Your task to perform on an android device: Clear all items from cart on target.com. Add "dell xps" to the cart on target.com Image 0: 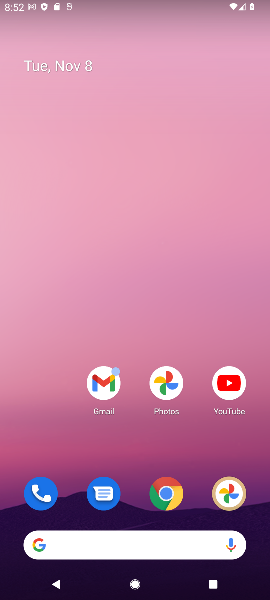
Step 0: click (171, 494)
Your task to perform on an android device: Clear all items from cart on target.com. Add "dell xps" to the cart on target.com Image 1: 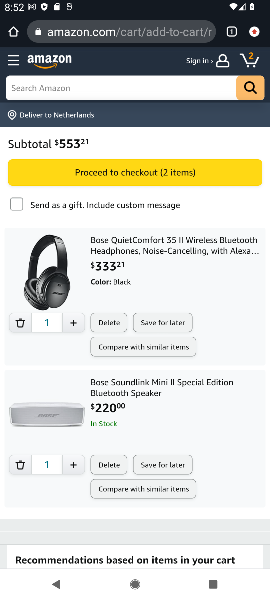
Step 1: click (89, 32)
Your task to perform on an android device: Clear all items from cart on target.com. Add "dell xps" to the cart on target.com Image 2: 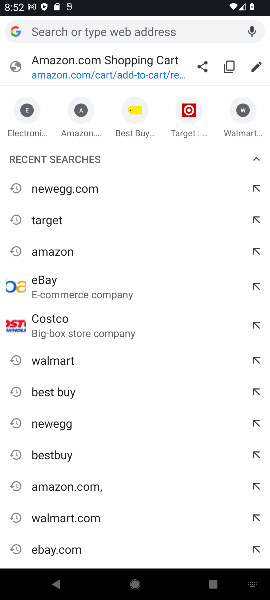
Step 2: click (178, 117)
Your task to perform on an android device: Clear all items from cart on target.com. Add "dell xps" to the cart on target.com Image 3: 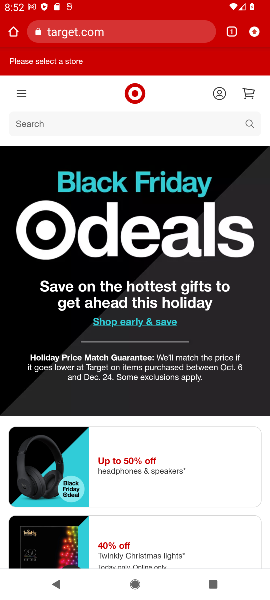
Step 3: click (247, 94)
Your task to perform on an android device: Clear all items from cart on target.com. Add "dell xps" to the cart on target.com Image 4: 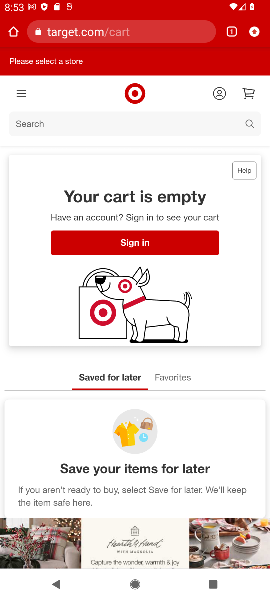
Step 4: click (245, 122)
Your task to perform on an android device: Clear all items from cart on target.com. Add "dell xps" to the cart on target.com Image 5: 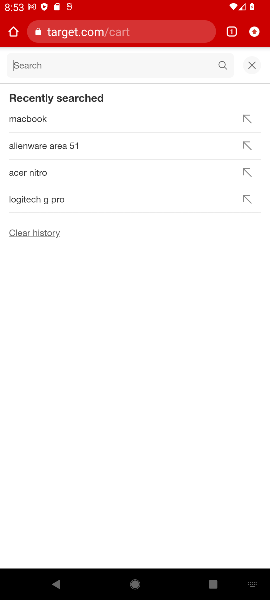
Step 5: type "dell xps"
Your task to perform on an android device: Clear all items from cart on target.com. Add "dell xps" to the cart on target.com Image 6: 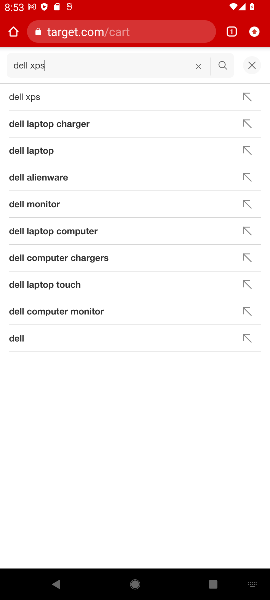
Step 6: click (38, 99)
Your task to perform on an android device: Clear all items from cart on target.com. Add "dell xps" to the cart on target.com Image 7: 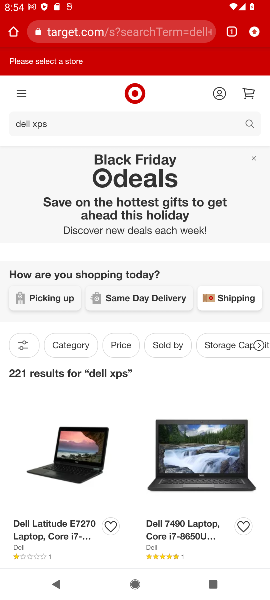
Step 7: click (250, 93)
Your task to perform on an android device: Clear all items from cart on target.com. Add "dell xps" to the cart on target.com Image 8: 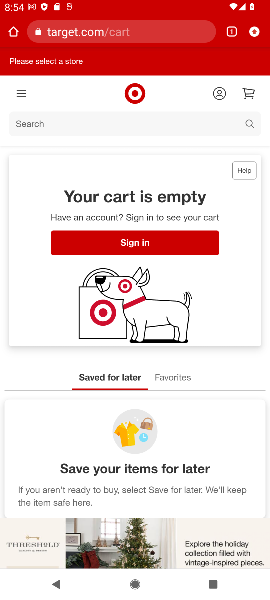
Step 8: click (155, 124)
Your task to perform on an android device: Clear all items from cart on target.com. Add "dell xps" to the cart on target.com Image 9: 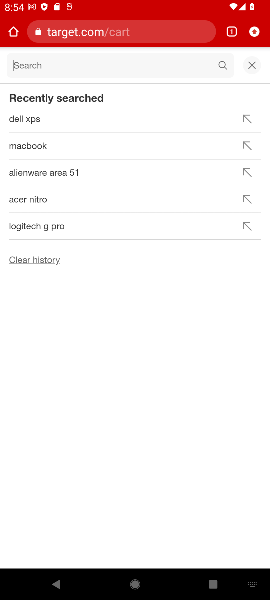
Step 9: click (19, 120)
Your task to perform on an android device: Clear all items from cart on target.com. Add "dell xps" to the cart on target.com Image 10: 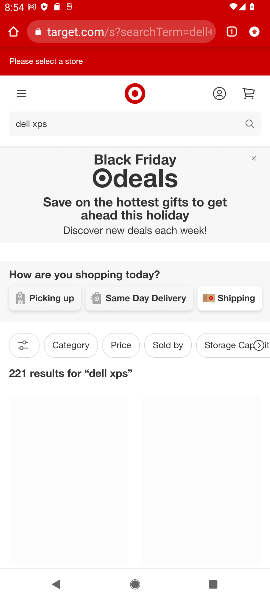
Step 10: task complete